Your task to perform on an android device: read, delete, or share a saved page in the chrome app Image 0: 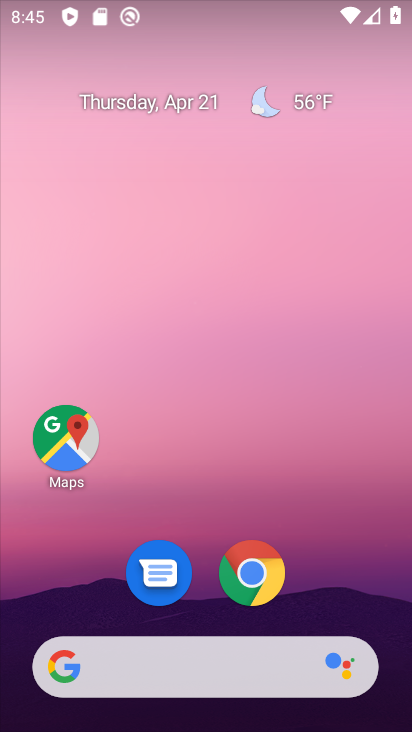
Step 0: click (274, 546)
Your task to perform on an android device: read, delete, or share a saved page in the chrome app Image 1: 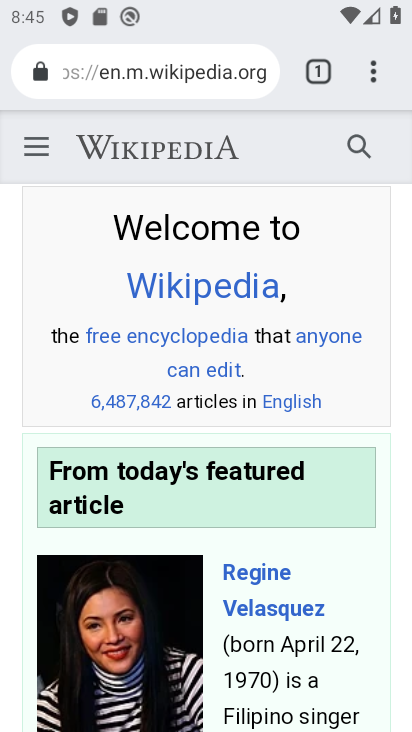
Step 1: click (368, 71)
Your task to perform on an android device: read, delete, or share a saved page in the chrome app Image 2: 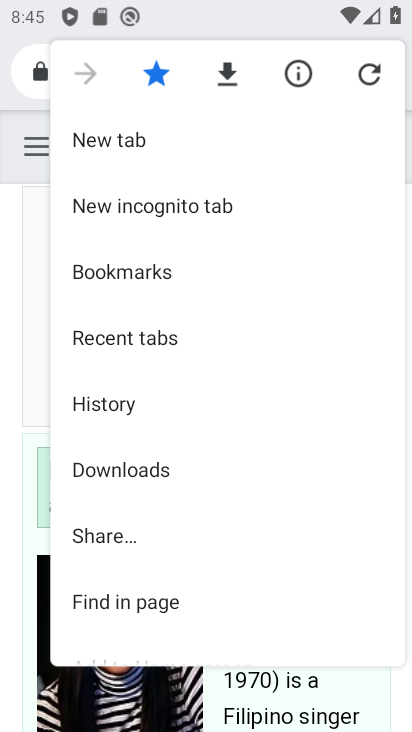
Step 2: drag from (270, 524) to (229, 85)
Your task to perform on an android device: read, delete, or share a saved page in the chrome app Image 3: 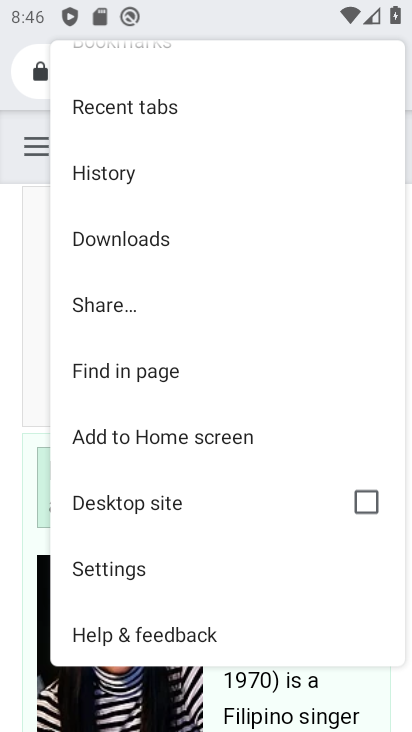
Step 3: click (139, 235)
Your task to perform on an android device: read, delete, or share a saved page in the chrome app Image 4: 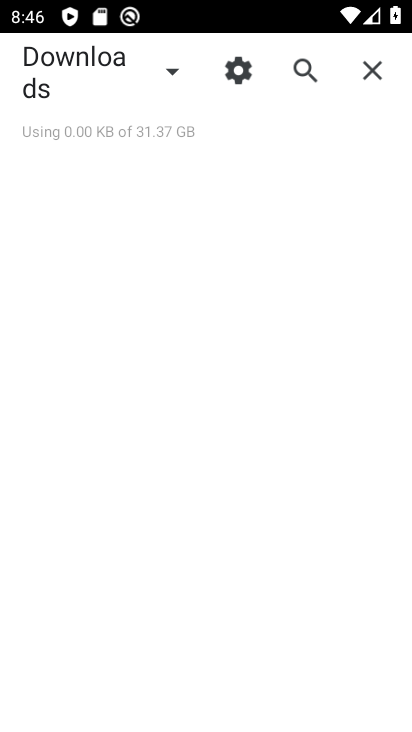
Step 4: task complete